Your task to perform on an android device: Go to Wikipedia Image 0: 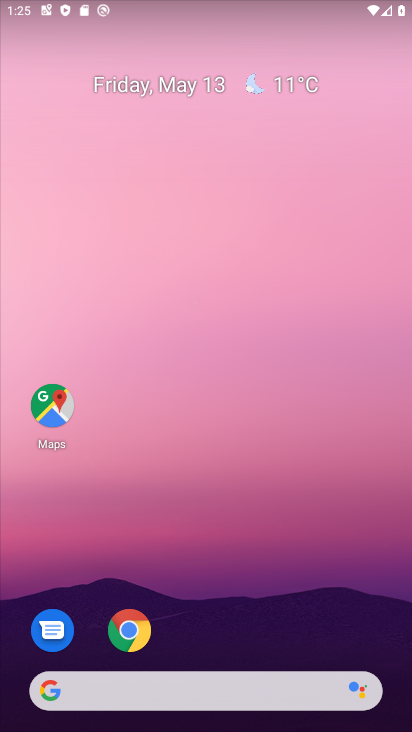
Step 0: click (130, 636)
Your task to perform on an android device: Go to Wikipedia Image 1: 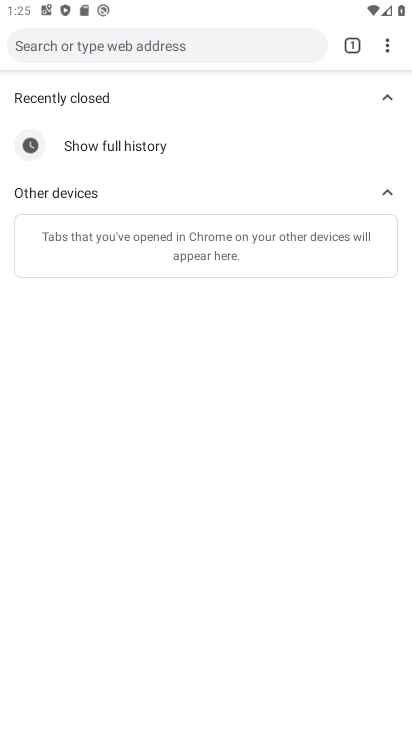
Step 1: click (124, 43)
Your task to perform on an android device: Go to Wikipedia Image 2: 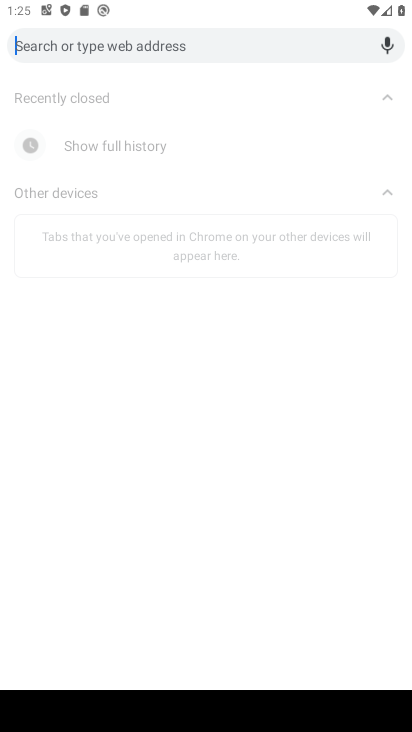
Step 2: type "wikipedia"
Your task to perform on an android device: Go to Wikipedia Image 3: 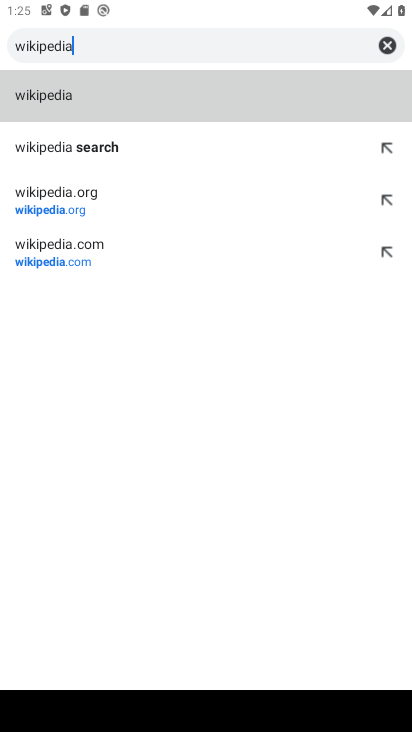
Step 3: click (54, 96)
Your task to perform on an android device: Go to Wikipedia Image 4: 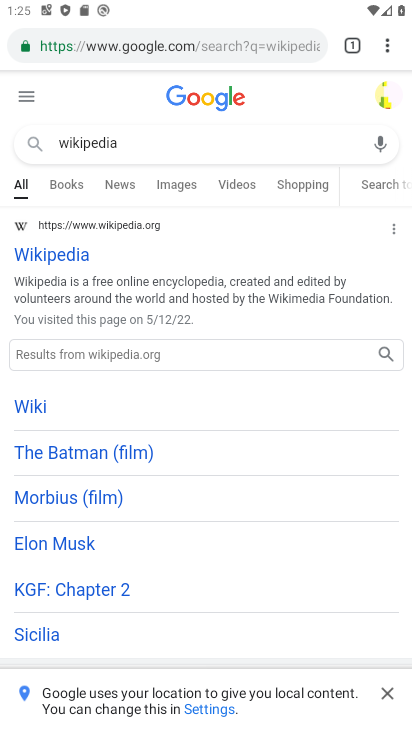
Step 4: click (55, 245)
Your task to perform on an android device: Go to Wikipedia Image 5: 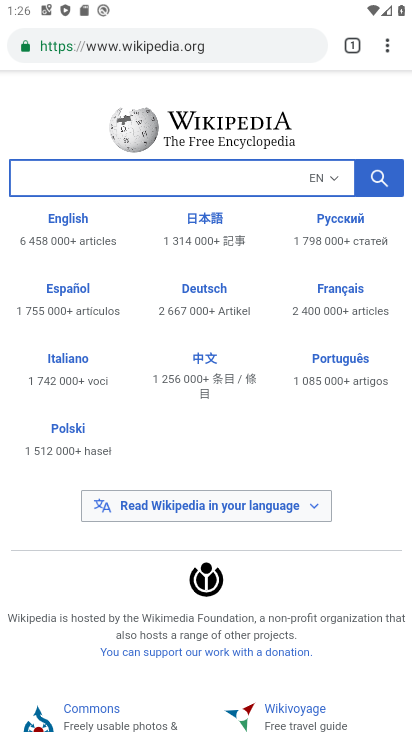
Step 5: task complete